Your task to perform on an android device: find which apps use the phone's location Image 0: 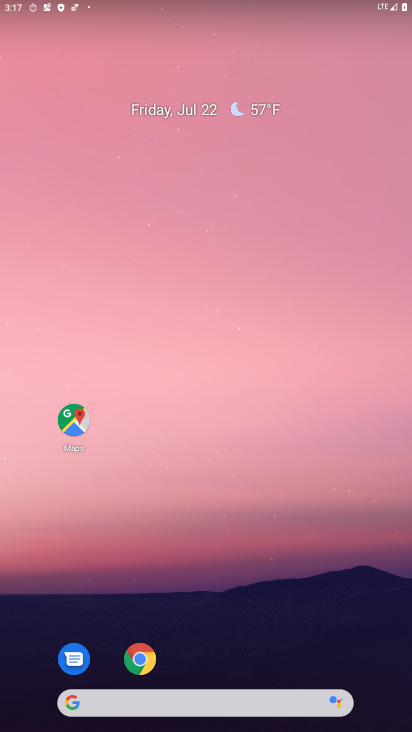
Step 0: drag from (198, 663) to (209, 33)
Your task to perform on an android device: find which apps use the phone's location Image 1: 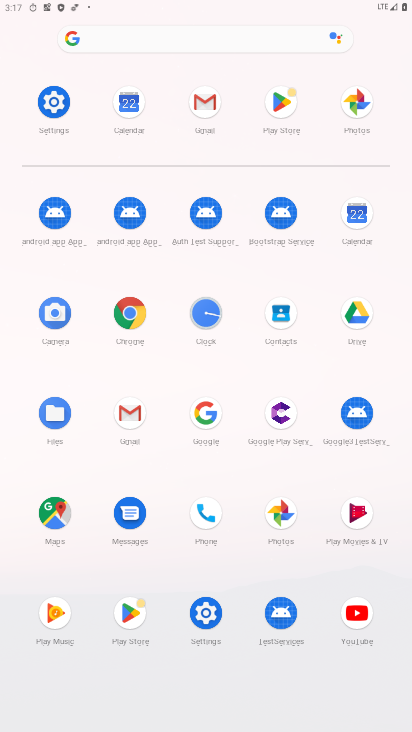
Step 1: click (203, 618)
Your task to perform on an android device: find which apps use the phone's location Image 2: 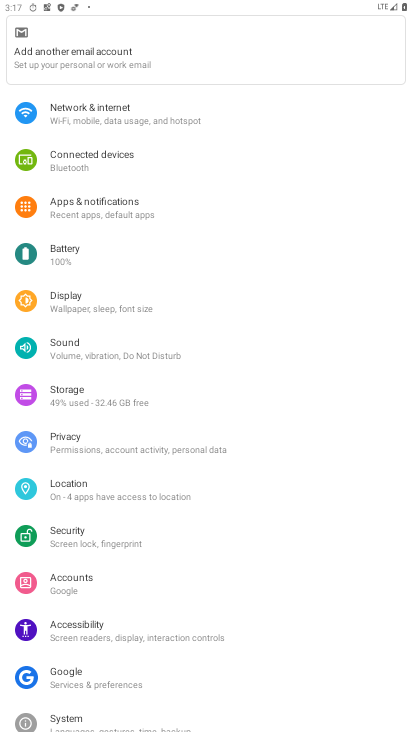
Step 2: click (89, 482)
Your task to perform on an android device: find which apps use the phone's location Image 3: 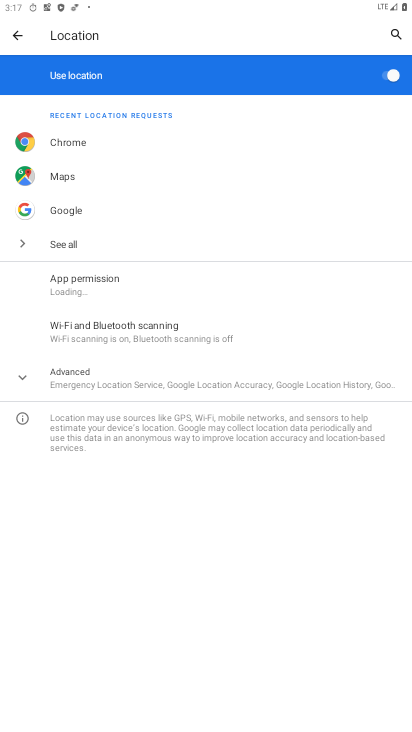
Step 3: click (94, 286)
Your task to perform on an android device: find which apps use the phone's location Image 4: 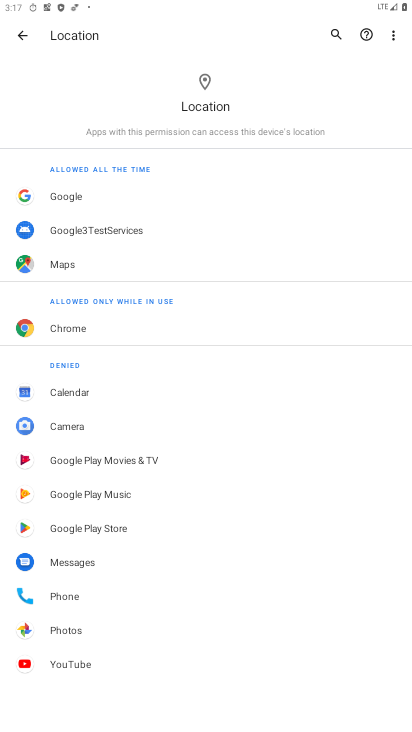
Step 4: task complete